Your task to perform on an android device: What is the recent news? Image 0: 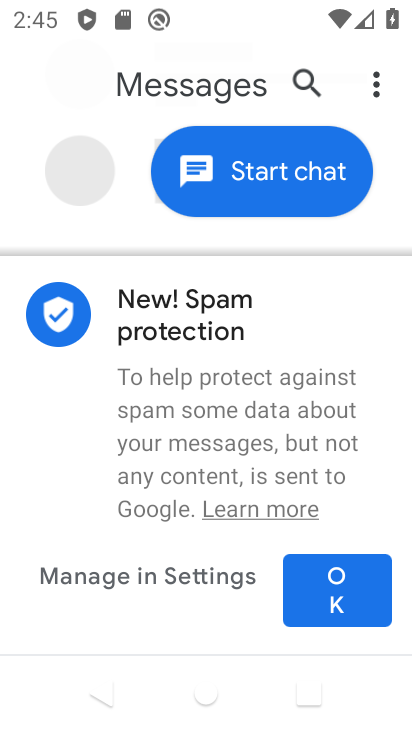
Step 0: press home button
Your task to perform on an android device: What is the recent news? Image 1: 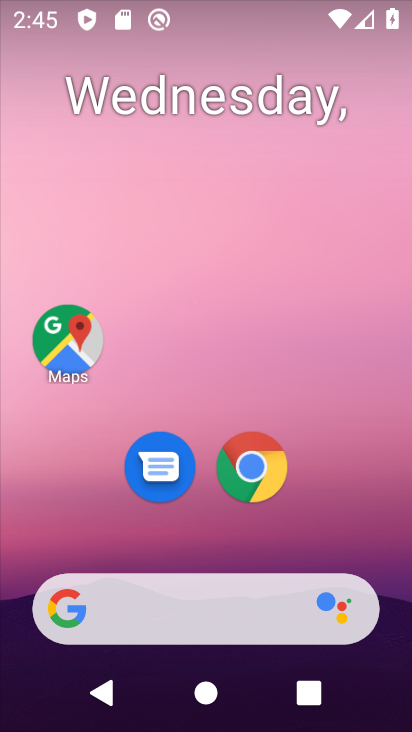
Step 1: task complete